Your task to perform on an android device: Empty the shopping cart on target.com. Add alienware aurora to the cart on target.com Image 0: 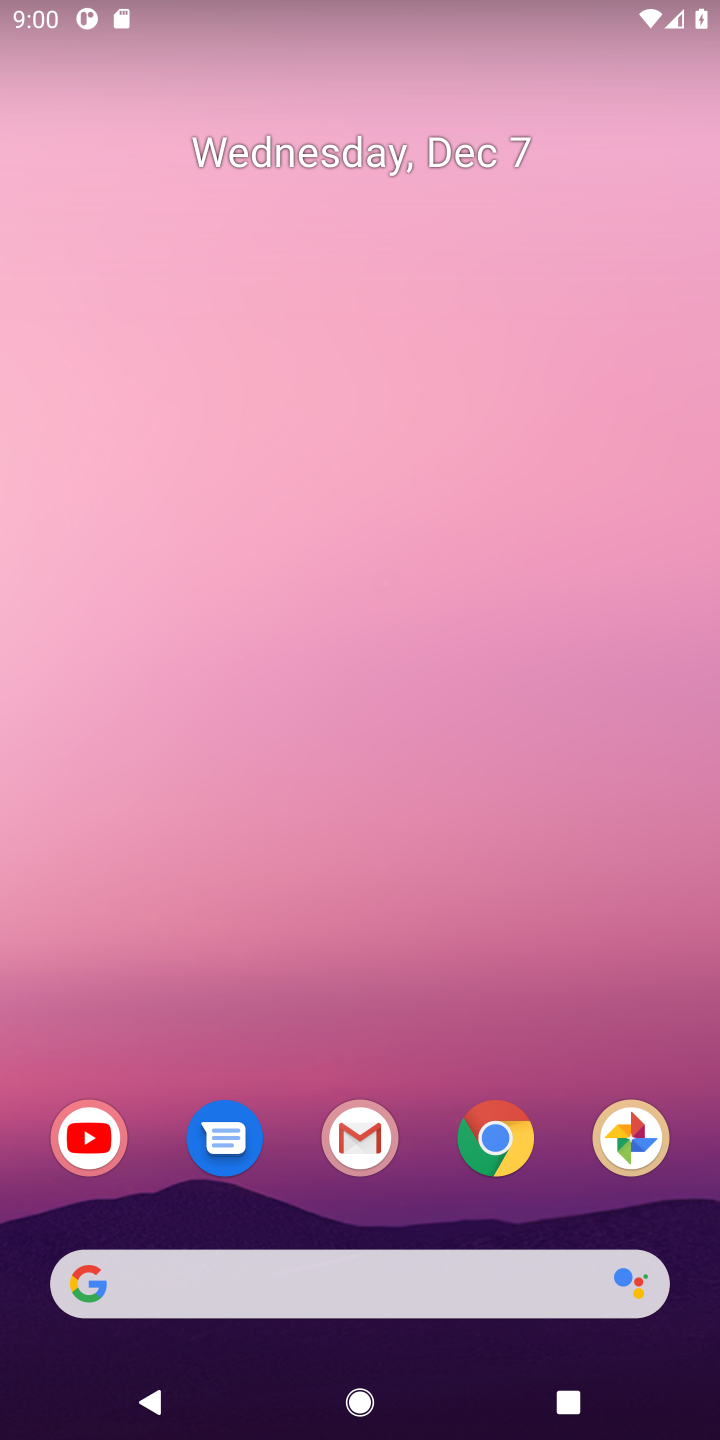
Step 0: click (120, 1288)
Your task to perform on an android device: Empty the shopping cart on target.com. Add alienware aurora to the cart on target.com Image 1: 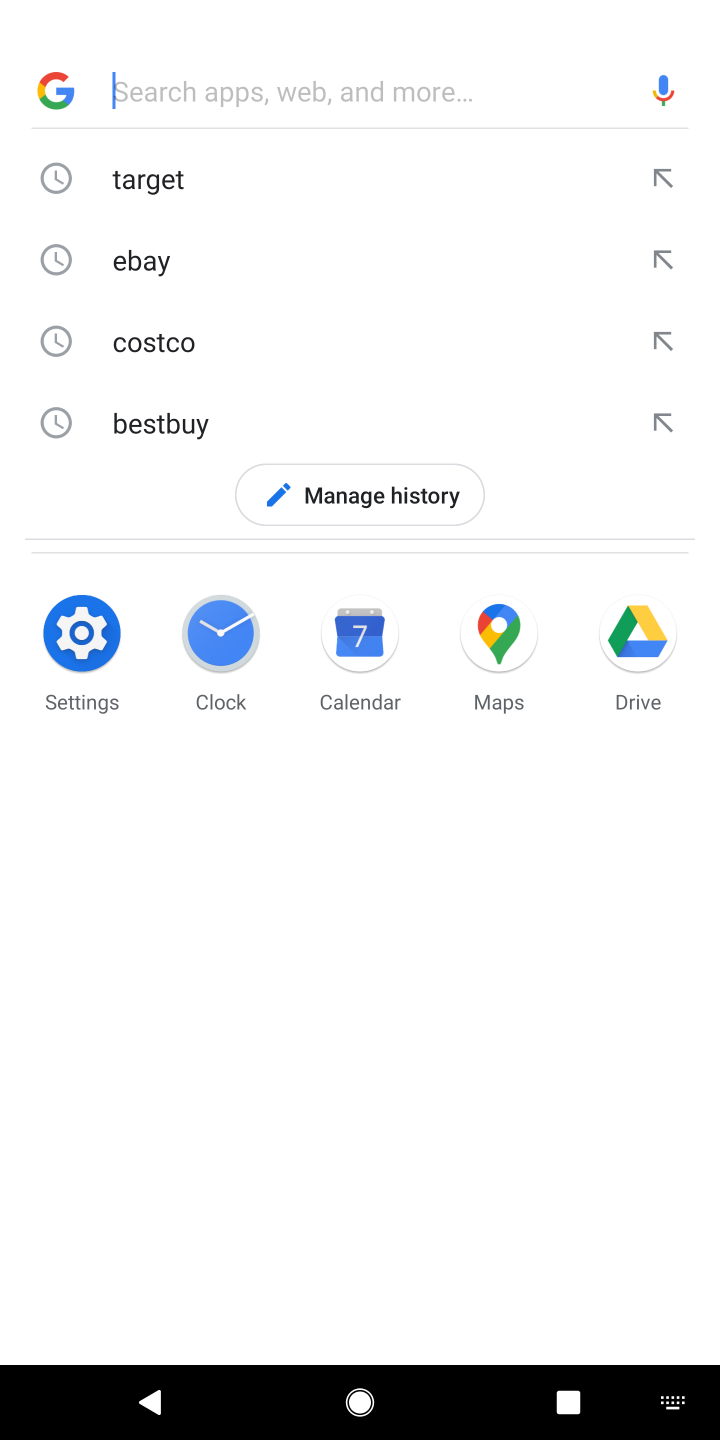
Step 1: press enter
Your task to perform on an android device: Empty the shopping cart on target.com. Add alienware aurora to the cart on target.com Image 2: 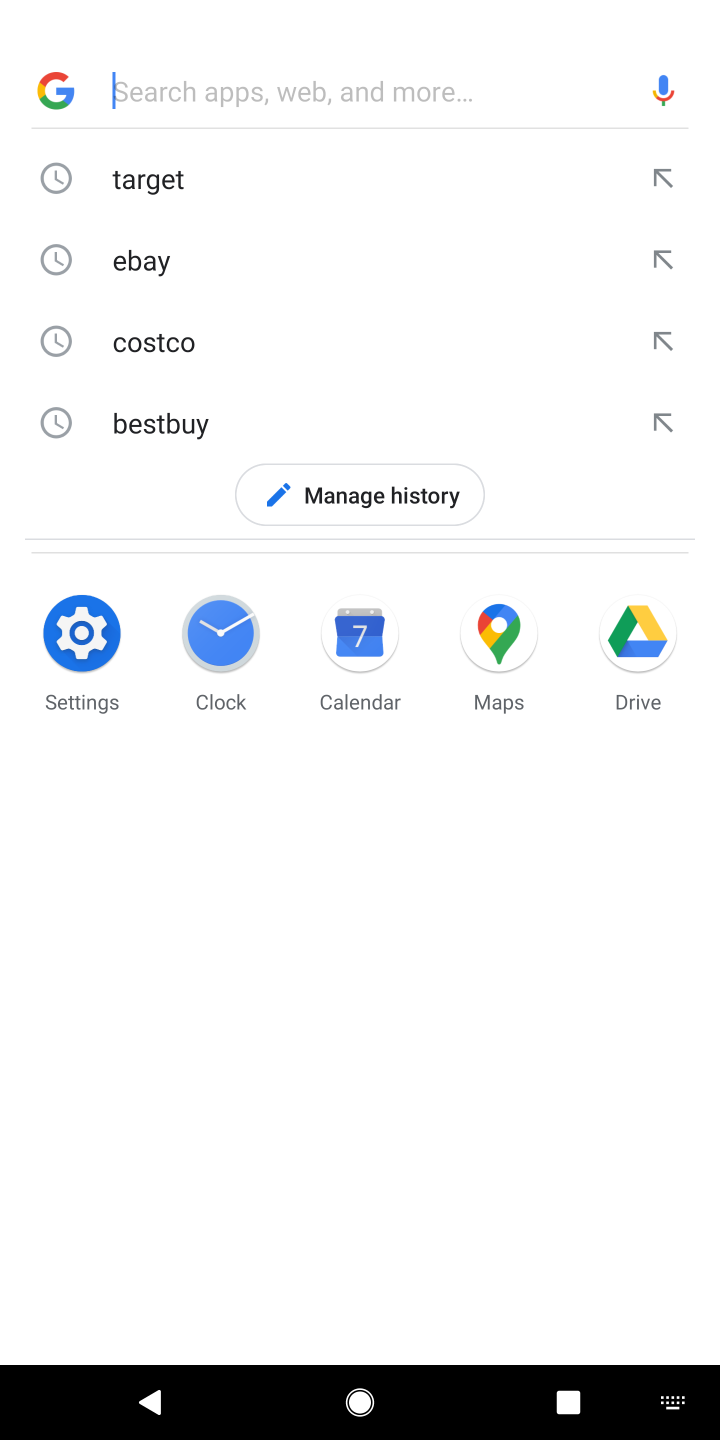
Step 2: type "target.com"
Your task to perform on an android device: Empty the shopping cart on target.com. Add alienware aurora to the cart on target.com Image 3: 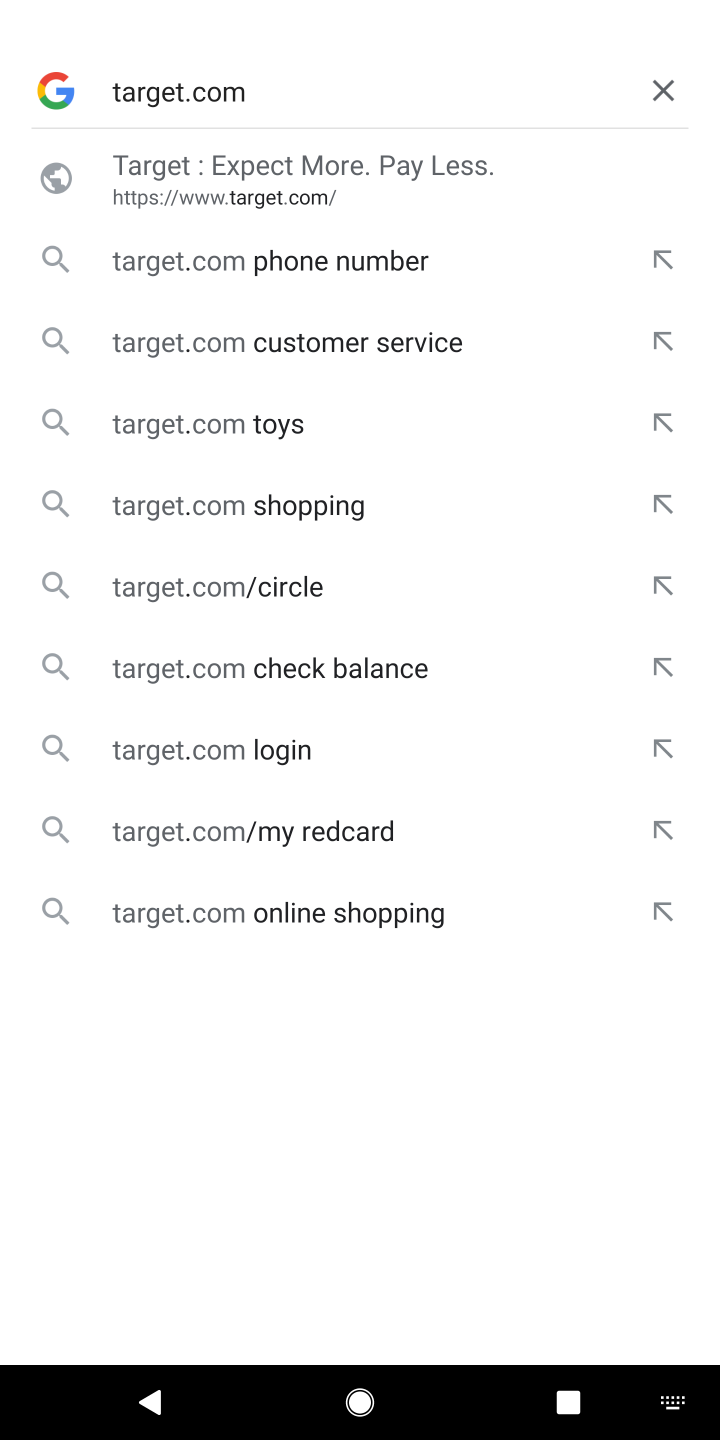
Step 3: press enter
Your task to perform on an android device: Empty the shopping cart on target.com. Add alienware aurora to the cart on target.com Image 4: 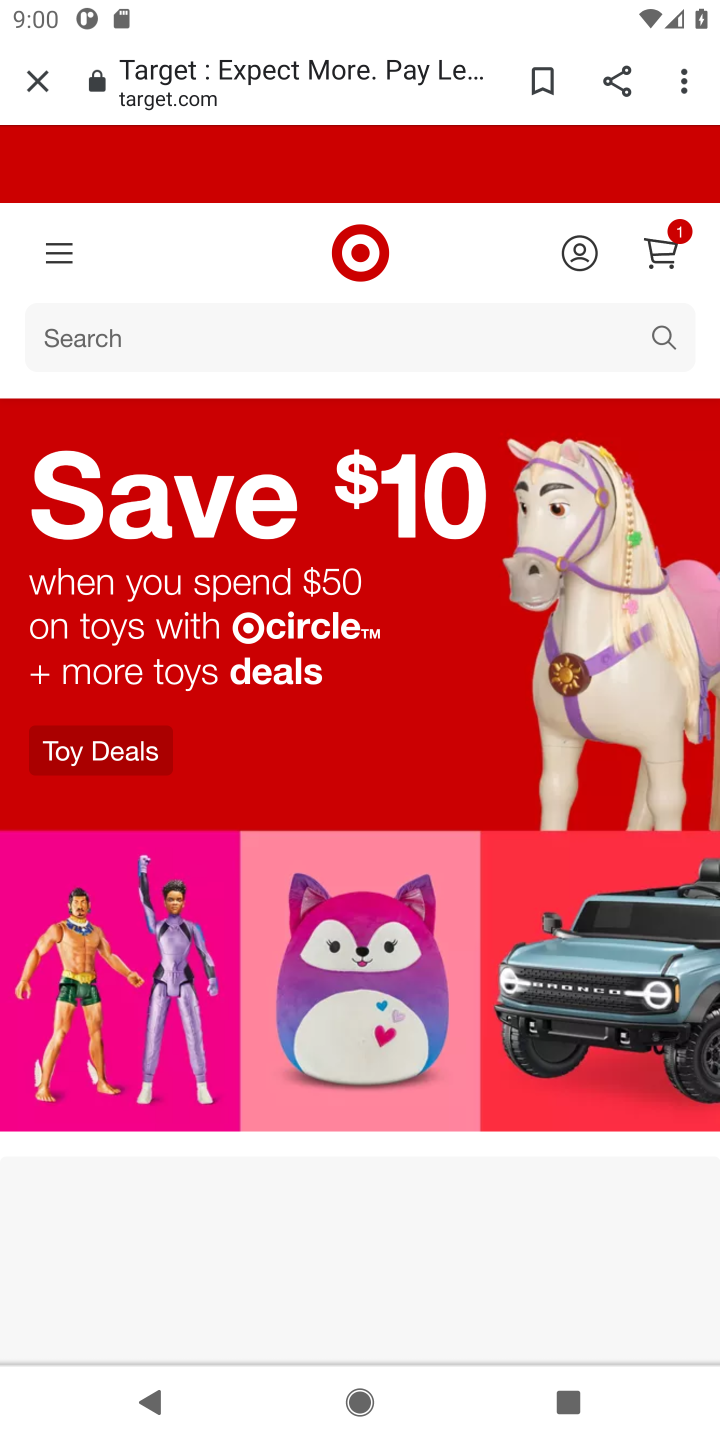
Step 4: click (666, 243)
Your task to perform on an android device: Empty the shopping cart on target.com. Add alienware aurora to the cart on target.com Image 5: 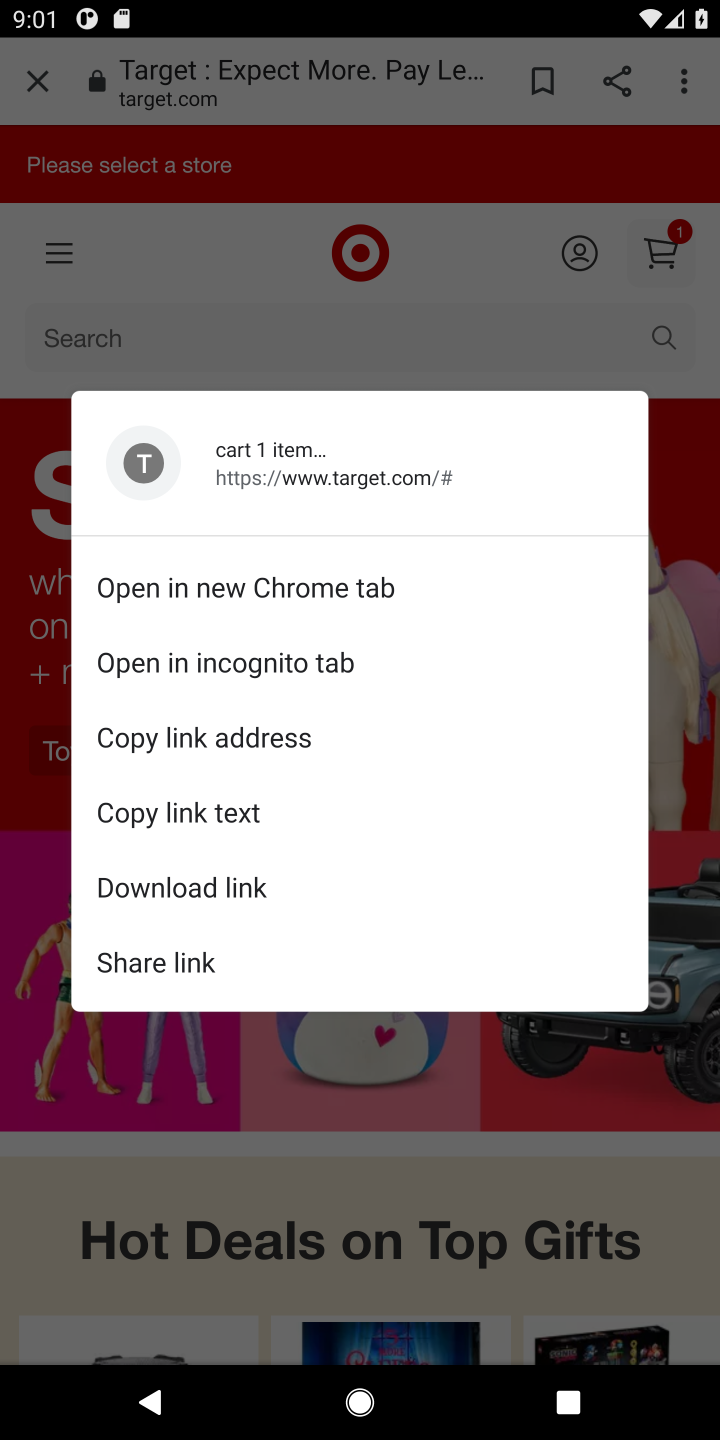
Step 5: click (670, 1037)
Your task to perform on an android device: Empty the shopping cart on target.com. Add alienware aurora to the cart on target.com Image 6: 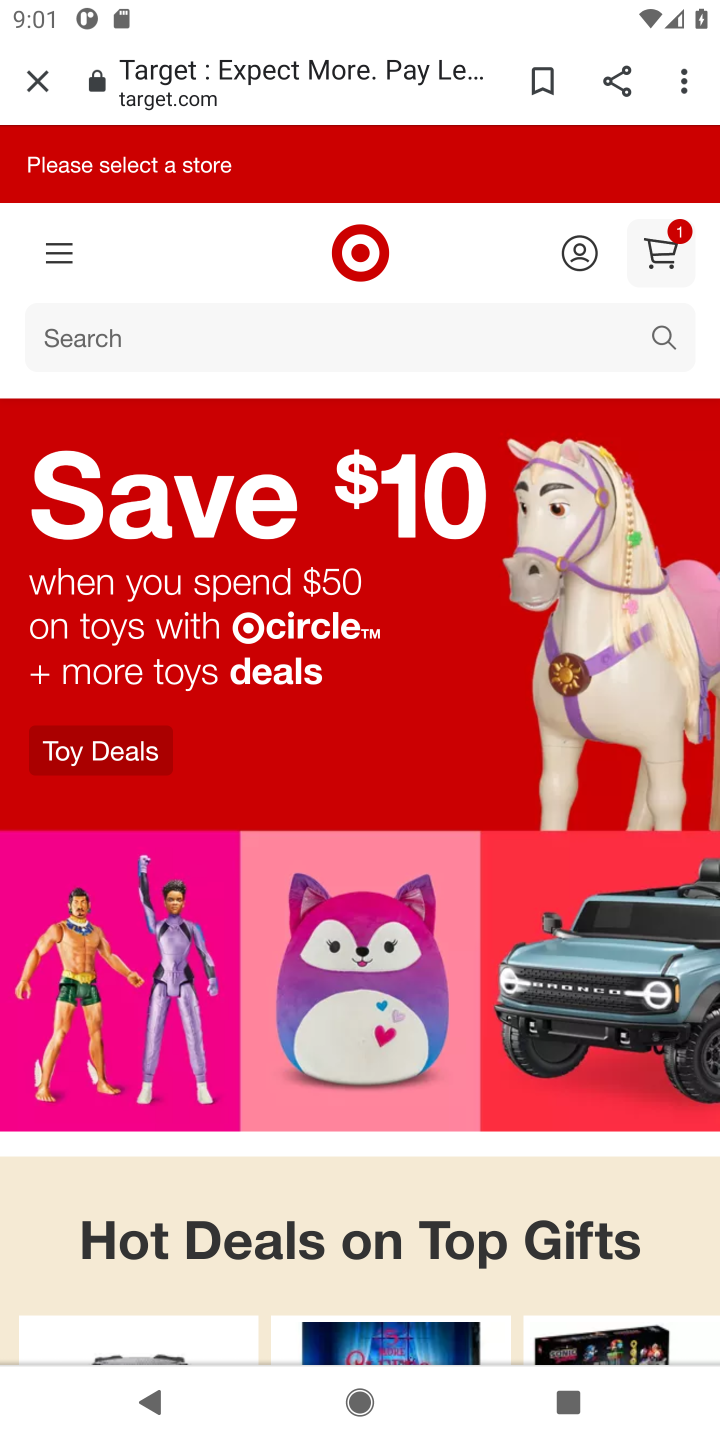
Step 6: click (675, 246)
Your task to perform on an android device: Empty the shopping cart on target.com. Add alienware aurora to the cart on target.com Image 7: 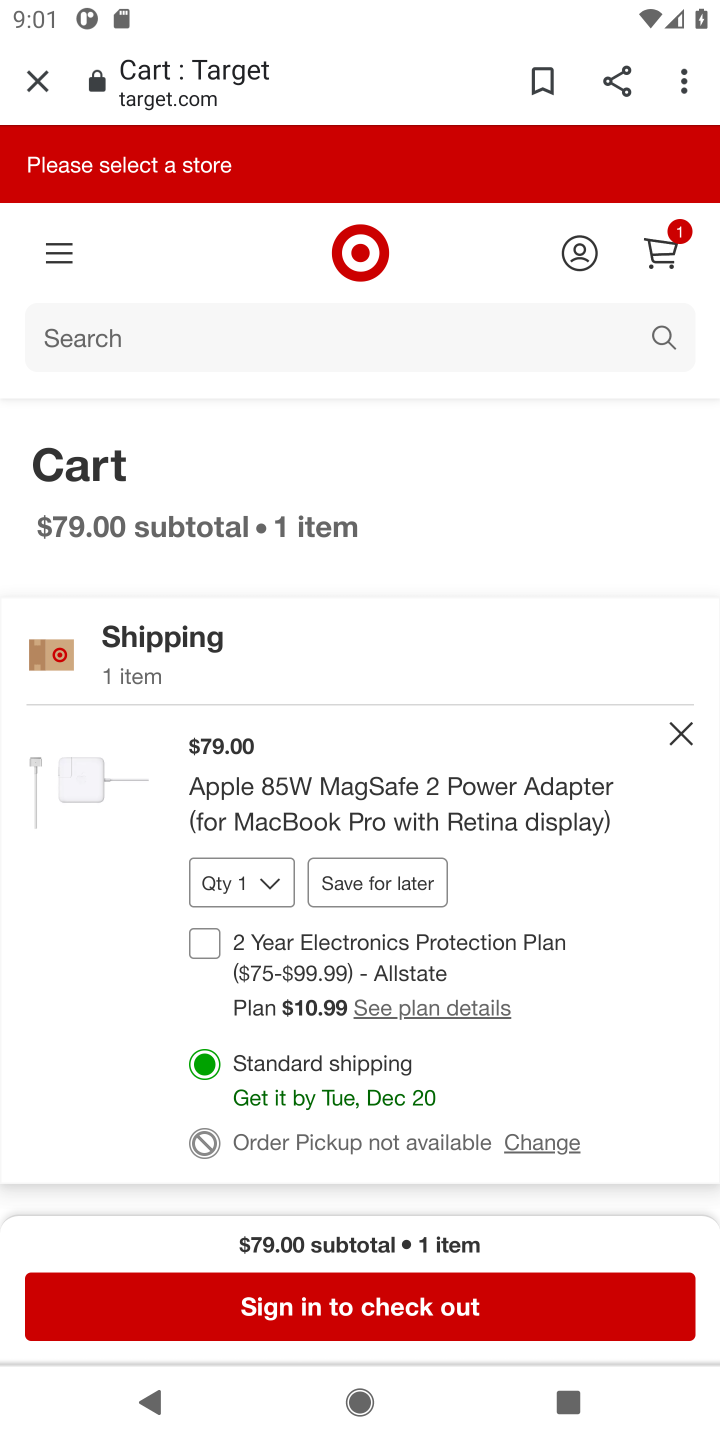
Step 7: click (683, 724)
Your task to perform on an android device: Empty the shopping cart on target.com. Add alienware aurora to the cart on target.com Image 8: 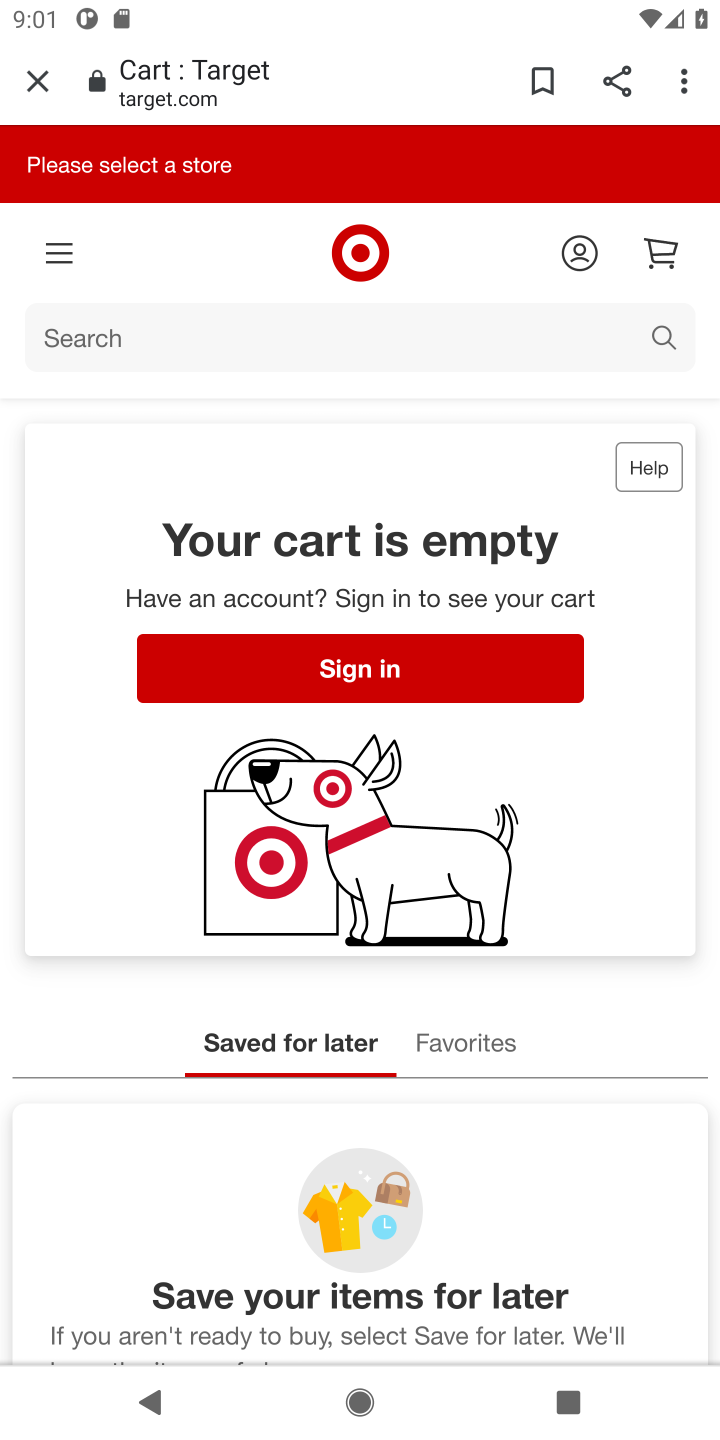
Step 8: click (112, 341)
Your task to perform on an android device: Empty the shopping cart on target.com. Add alienware aurora to the cart on target.com Image 9: 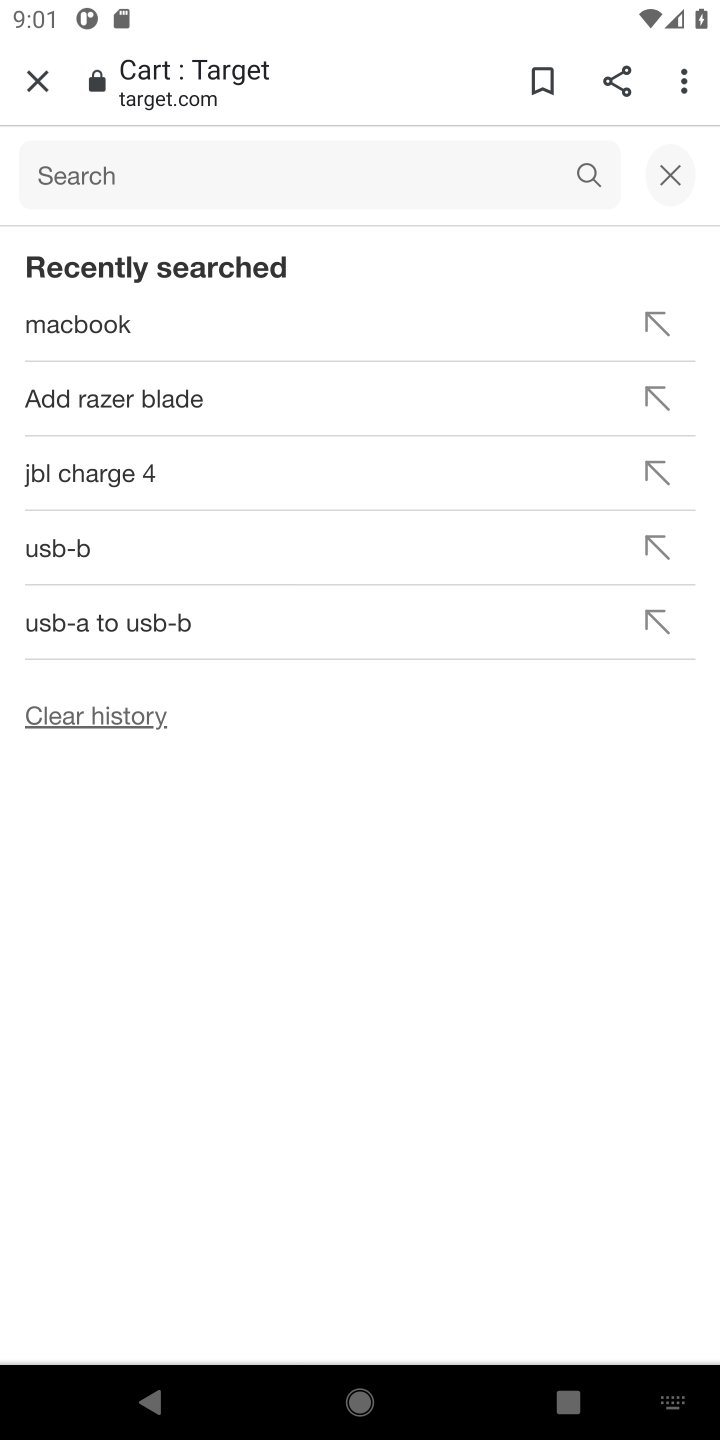
Step 9: type "alienware aurora"
Your task to perform on an android device: Empty the shopping cart on target.com. Add alienware aurora to the cart on target.com Image 10: 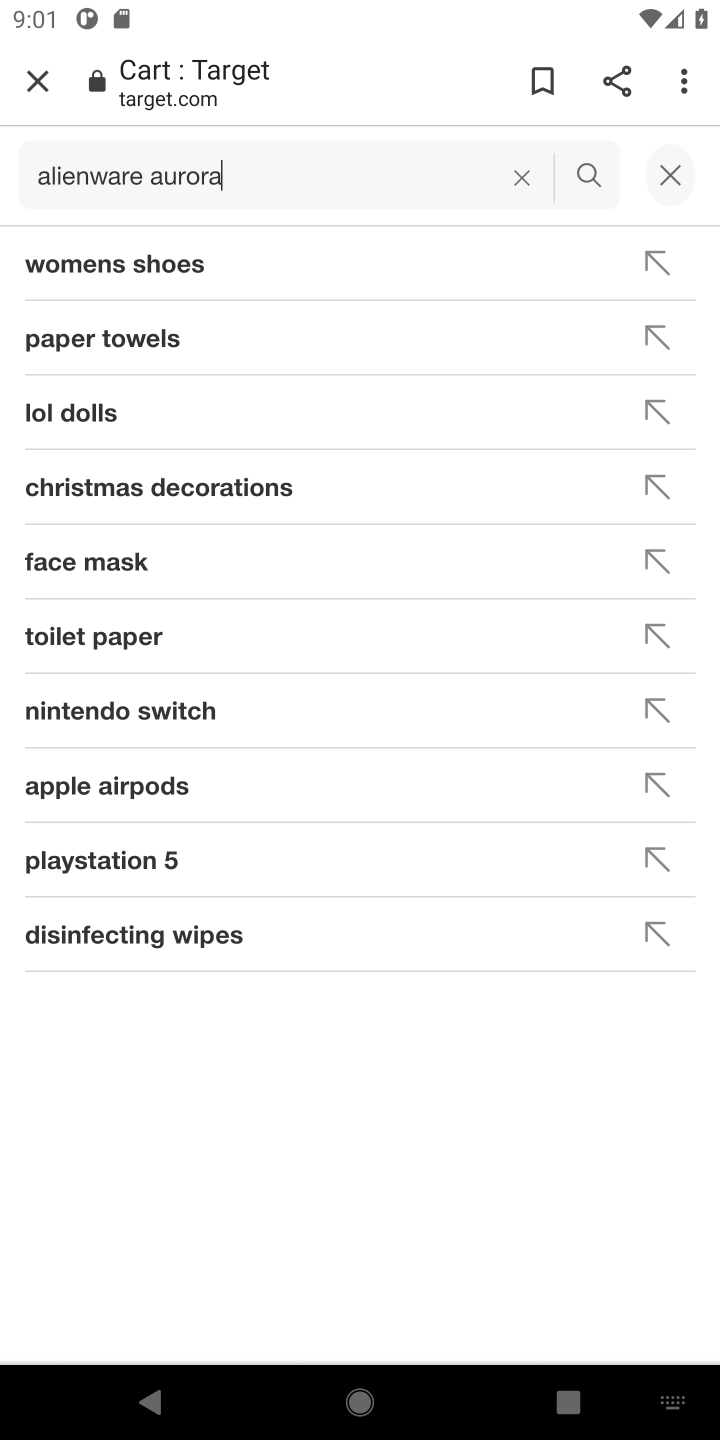
Step 10: press enter
Your task to perform on an android device: Empty the shopping cart on target.com. Add alienware aurora to the cart on target.com Image 11: 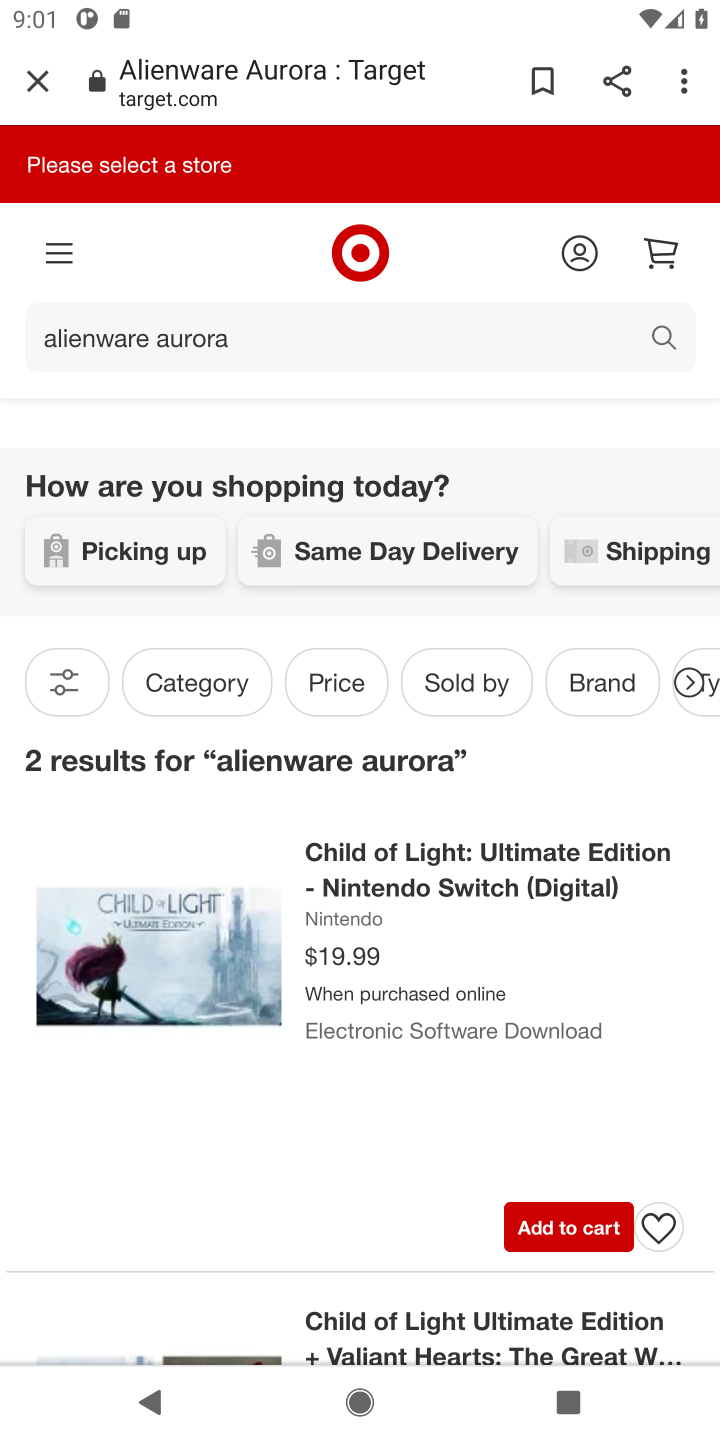
Step 11: task complete